Your task to perform on an android device: toggle priority inbox in the gmail app Image 0: 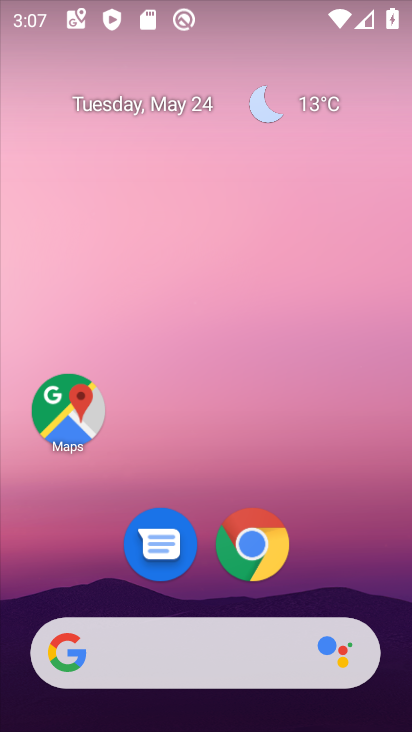
Step 0: drag from (347, 524) to (299, 94)
Your task to perform on an android device: toggle priority inbox in the gmail app Image 1: 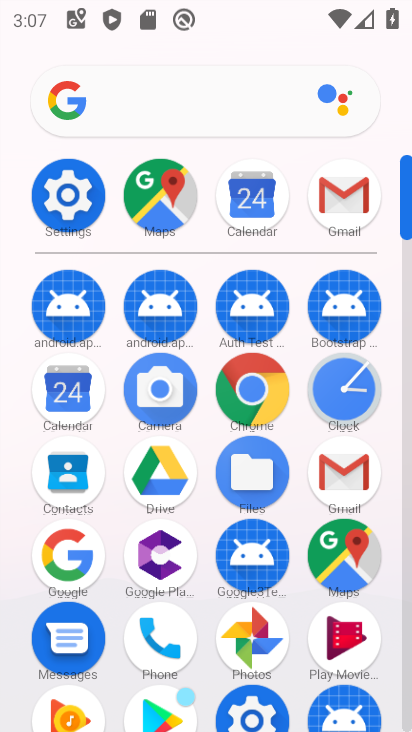
Step 1: click (361, 205)
Your task to perform on an android device: toggle priority inbox in the gmail app Image 2: 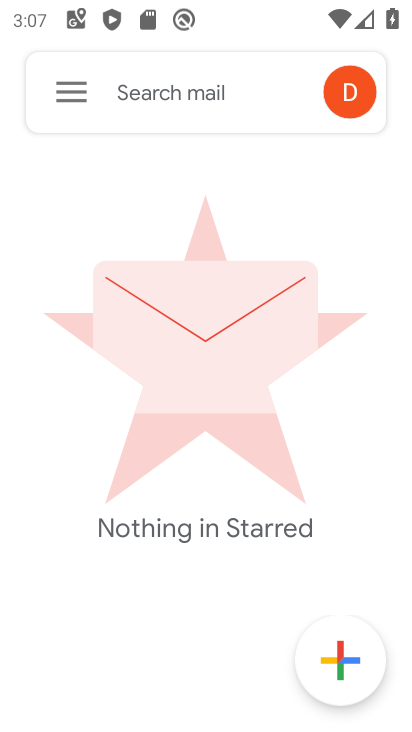
Step 2: click (68, 87)
Your task to perform on an android device: toggle priority inbox in the gmail app Image 3: 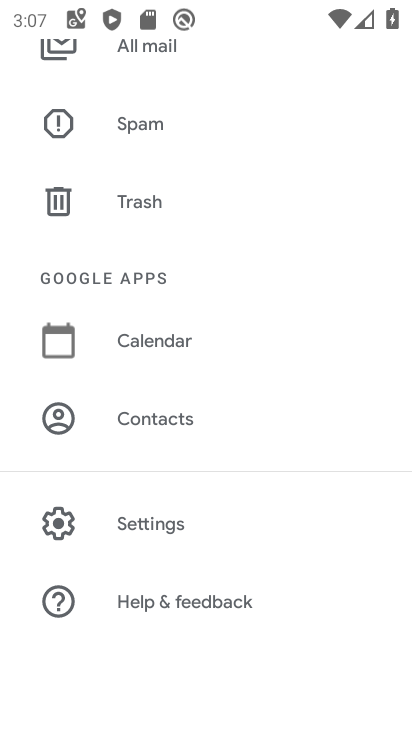
Step 3: click (136, 524)
Your task to perform on an android device: toggle priority inbox in the gmail app Image 4: 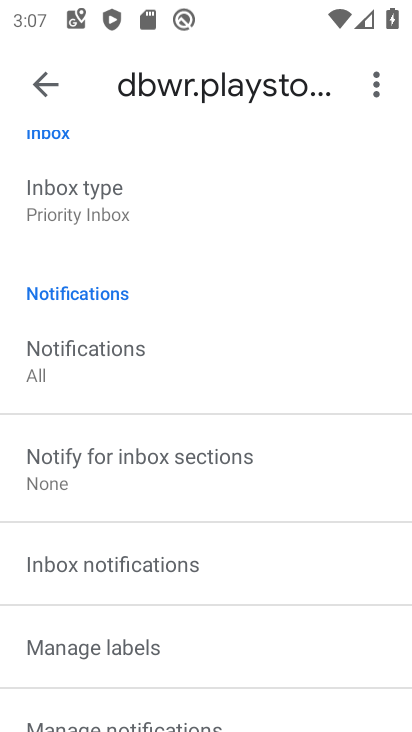
Step 4: click (81, 203)
Your task to perform on an android device: toggle priority inbox in the gmail app Image 5: 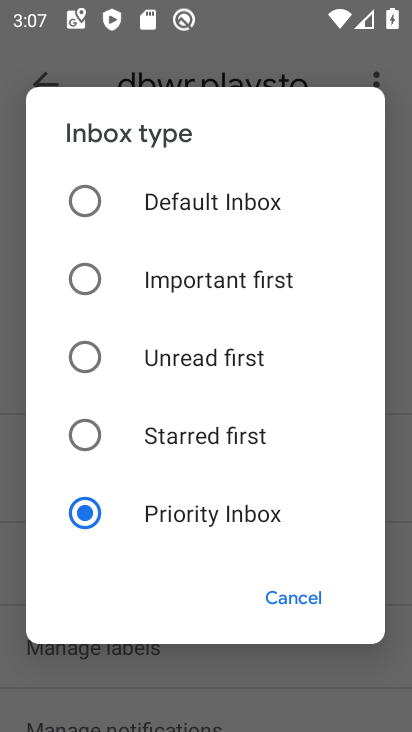
Step 5: click (88, 203)
Your task to perform on an android device: toggle priority inbox in the gmail app Image 6: 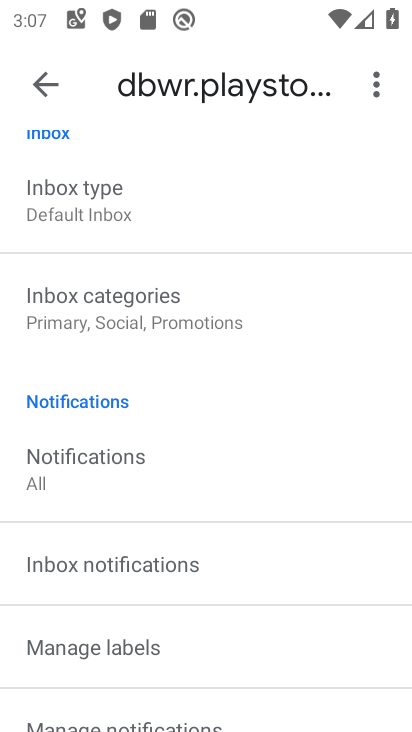
Step 6: task complete